Your task to perform on an android device: set an alarm Image 0: 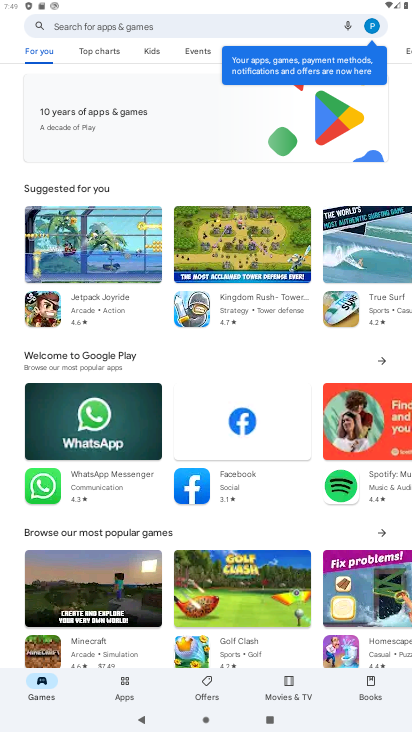
Step 0: press home button
Your task to perform on an android device: set an alarm Image 1: 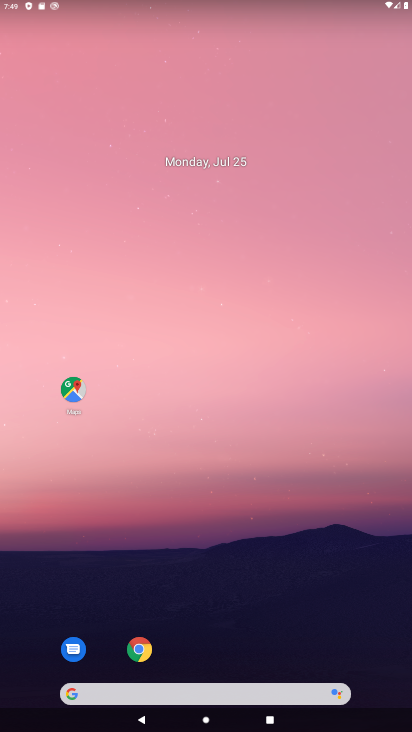
Step 1: drag from (378, 653) to (336, 242)
Your task to perform on an android device: set an alarm Image 2: 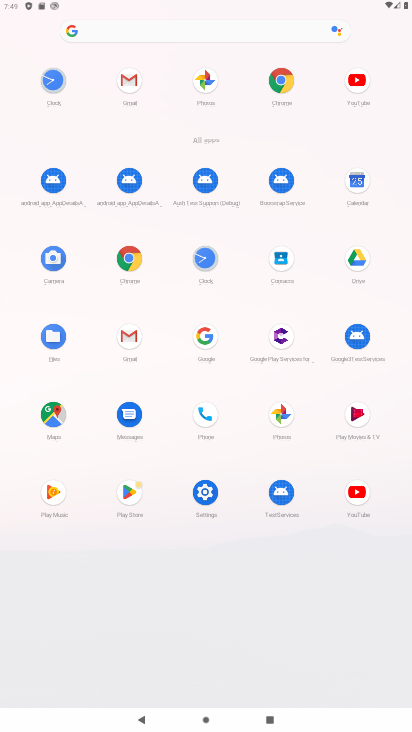
Step 2: click (205, 259)
Your task to perform on an android device: set an alarm Image 3: 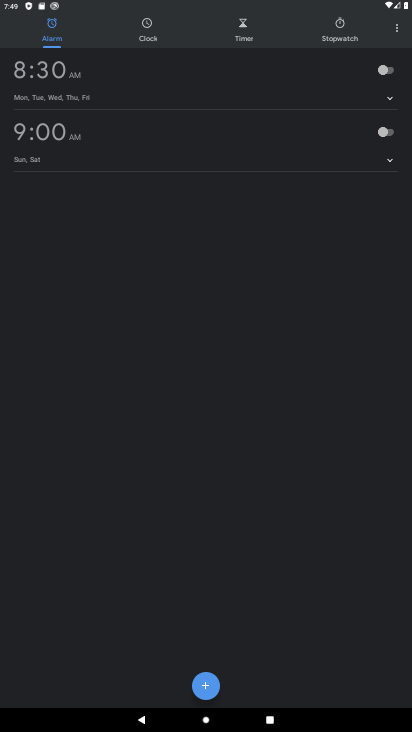
Step 3: click (42, 76)
Your task to perform on an android device: set an alarm Image 4: 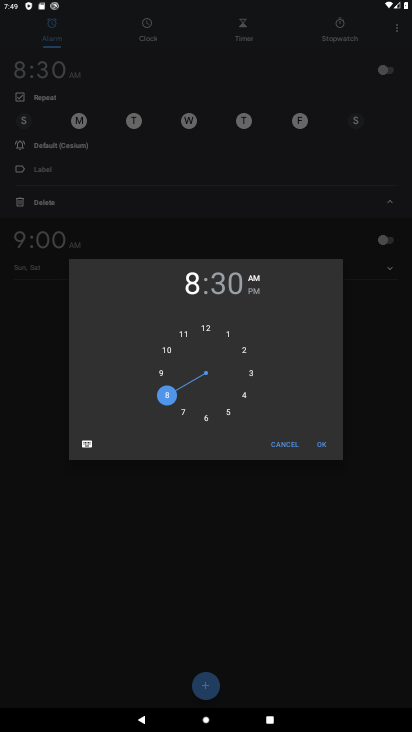
Step 4: click (231, 415)
Your task to perform on an android device: set an alarm Image 5: 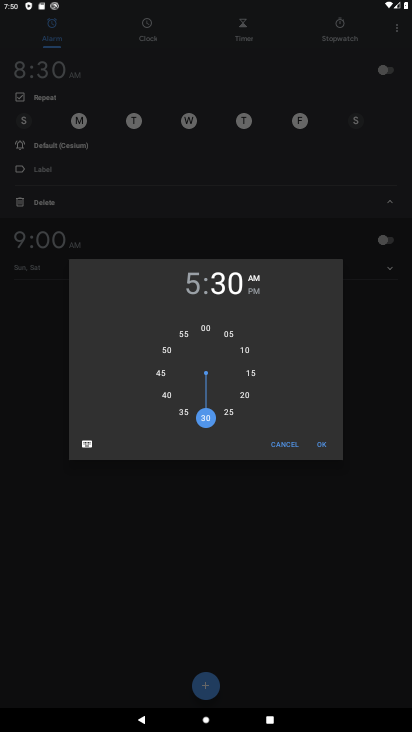
Step 5: click (322, 447)
Your task to perform on an android device: set an alarm Image 6: 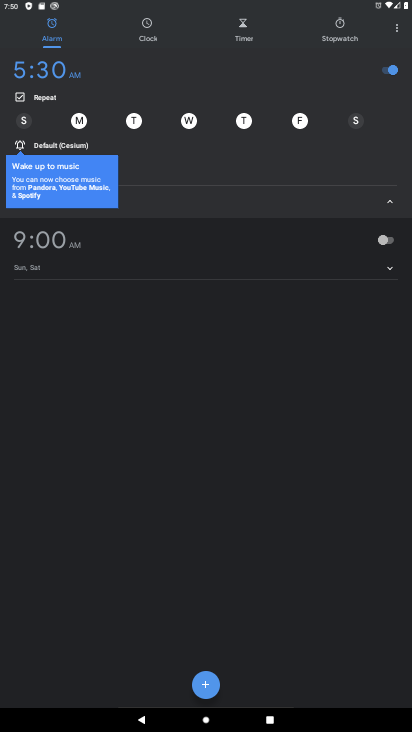
Step 6: click (359, 123)
Your task to perform on an android device: set an alarm Image 7: 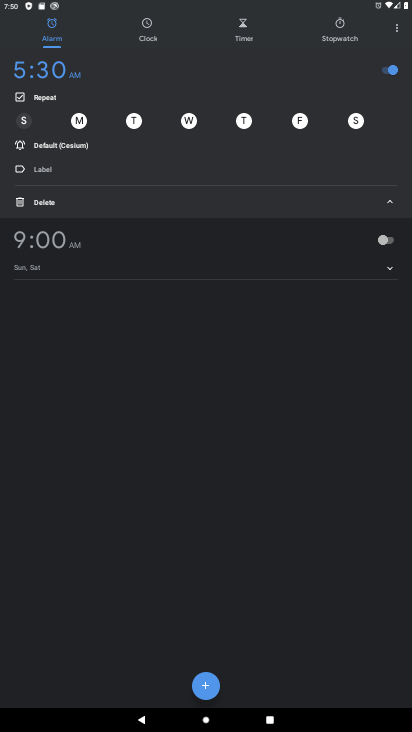
Step 7: click (388, 203)
Your task to perform on an android device: set an alarm Image 8: 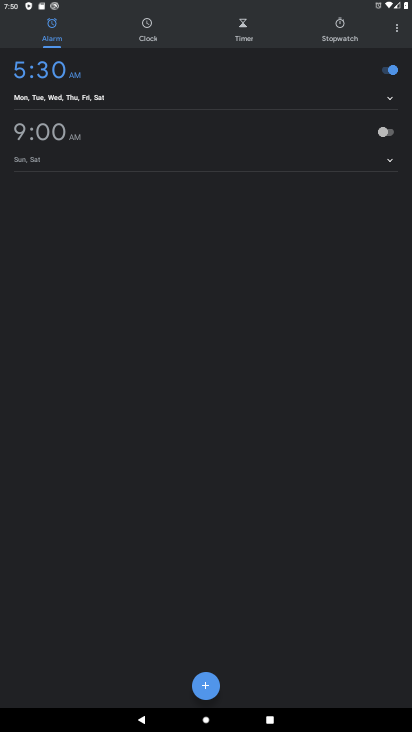
Step 8: task complete